Your task to perform on an android device: open a new tab in the chrome app Image 0: 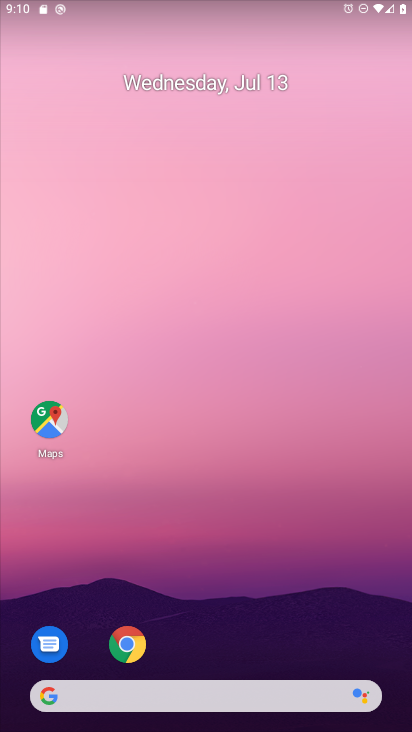
Step 0: click (133, 648)
Your task to perform on an android device: open a new tab in the chrome app Image 1: 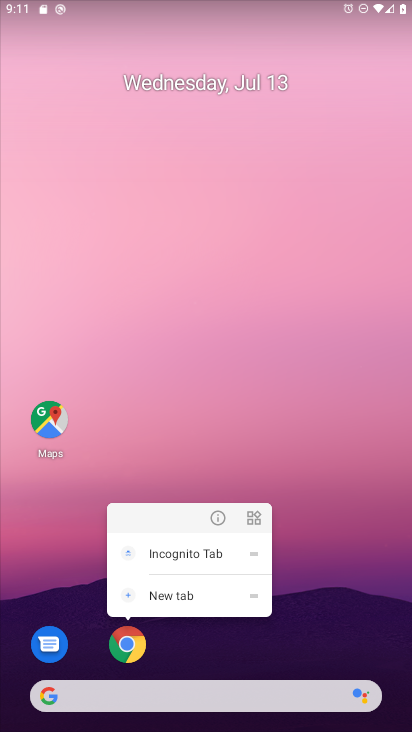
Step 1: click (141, 642)
Your task to perform on an android device: open a new tab in the chrome app Image 2: 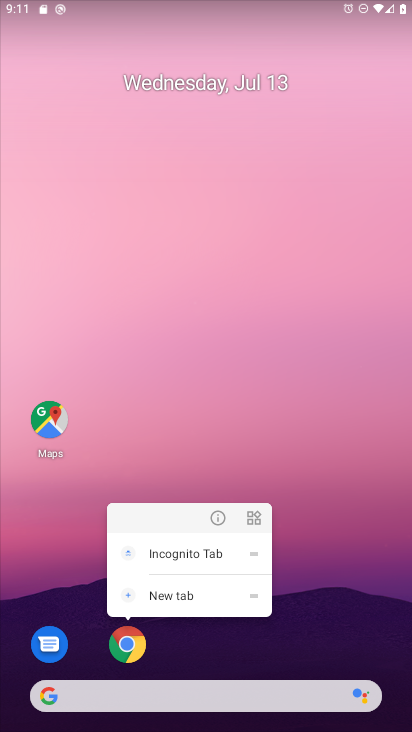
Step 2: click (140, 644)
Your task to perform on an android device: open a new tab in the chrome app Image 3: 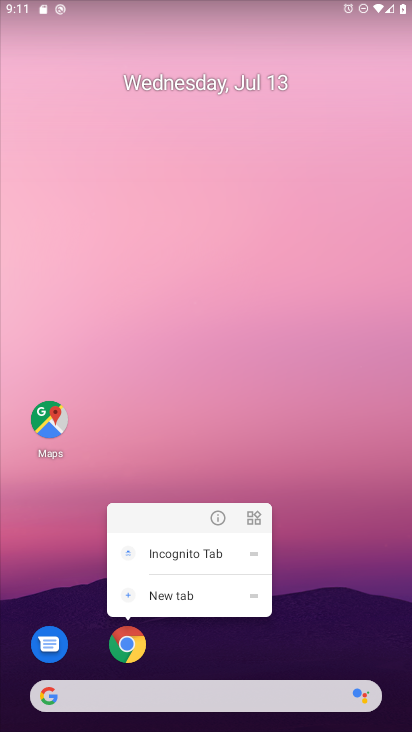
Step 3: click (118, 652)
Your task to perform on an android device: open a new tab in the chrome app Image 4: 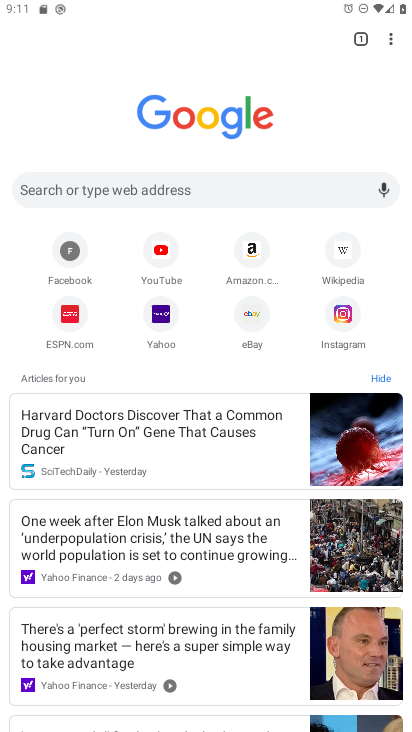
Step 4: click (355, 44)
Your task to perform on an android device: open a new tab in the chrome app Image 5: 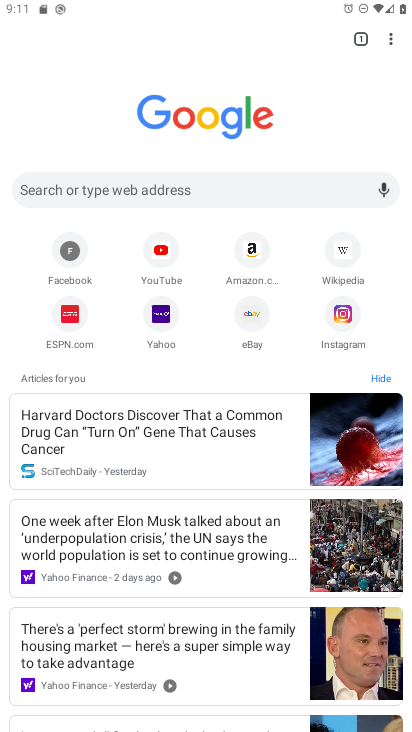
Step 5: task complete